Your task to perform on an android device: How do I get to the nearest Macy's? Image 0: 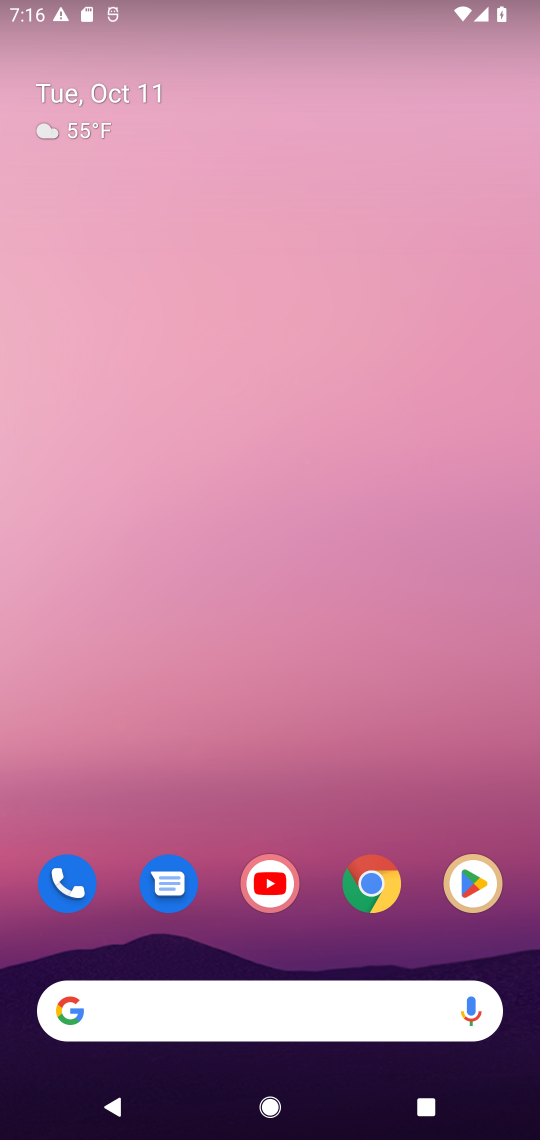
Step 0: drag from (313, 946) to (362, 6)
Your task to perform on an android device: How do I get to the nearest Macy's? Image 1: 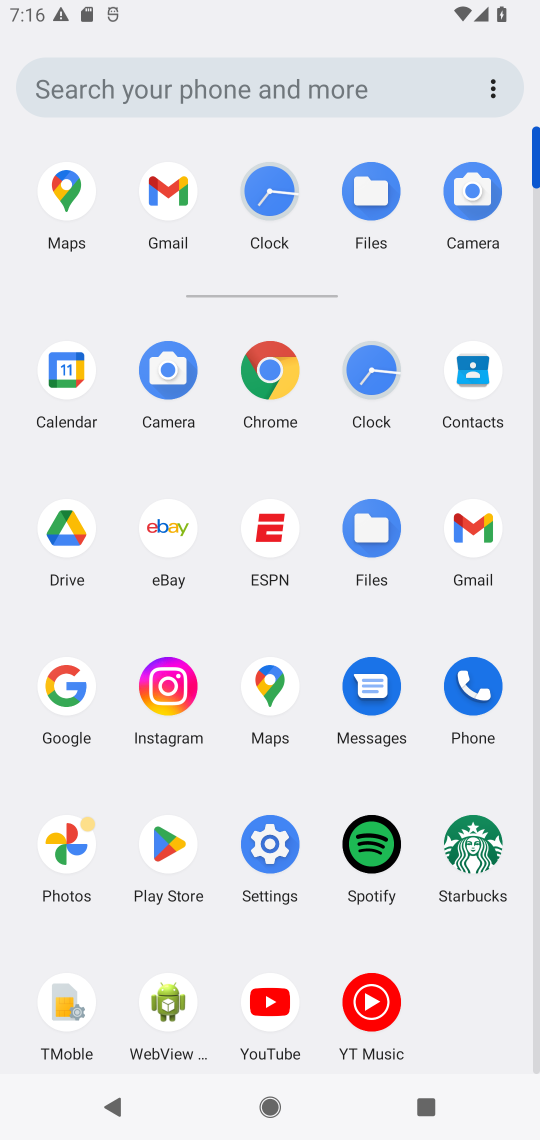
Step 1: click (275, 369)
Your task to perform on an android device: How do I get to the nearest Macy's? Image 2: 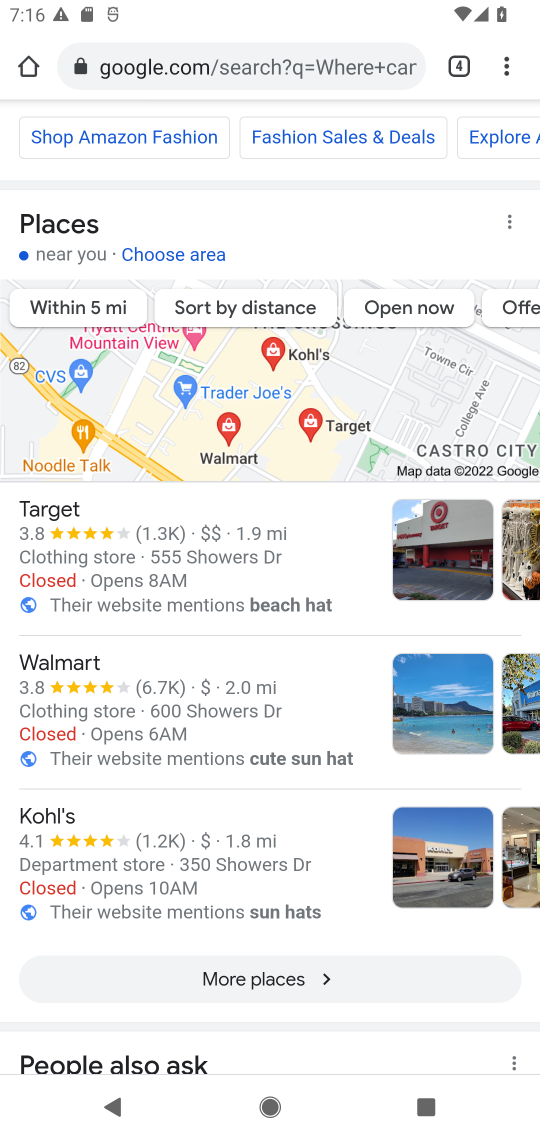
Step 2: click (286, 60)
Your task to perform on an android device: How do I get to the nearest Macy's? Image 3: 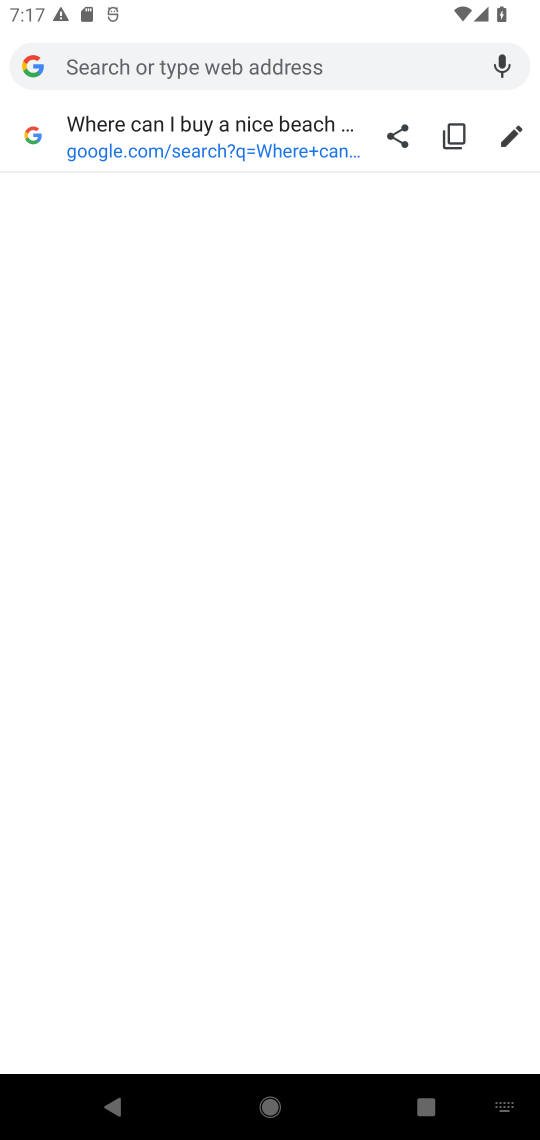
Step 3: type "How do I get to the nearest Macy's?"
Your task to perform on an android device: How do I get to the nearest Macy's? Image 4: 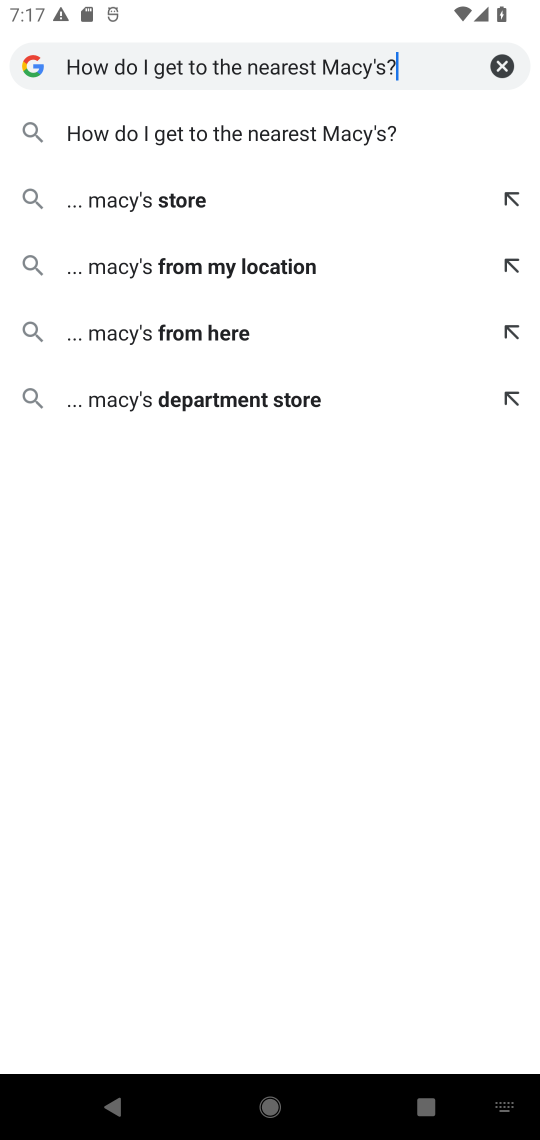
Step 4: press enter
Your task to perform on an android device: How do I get to the nearest Macy's? Image 5: 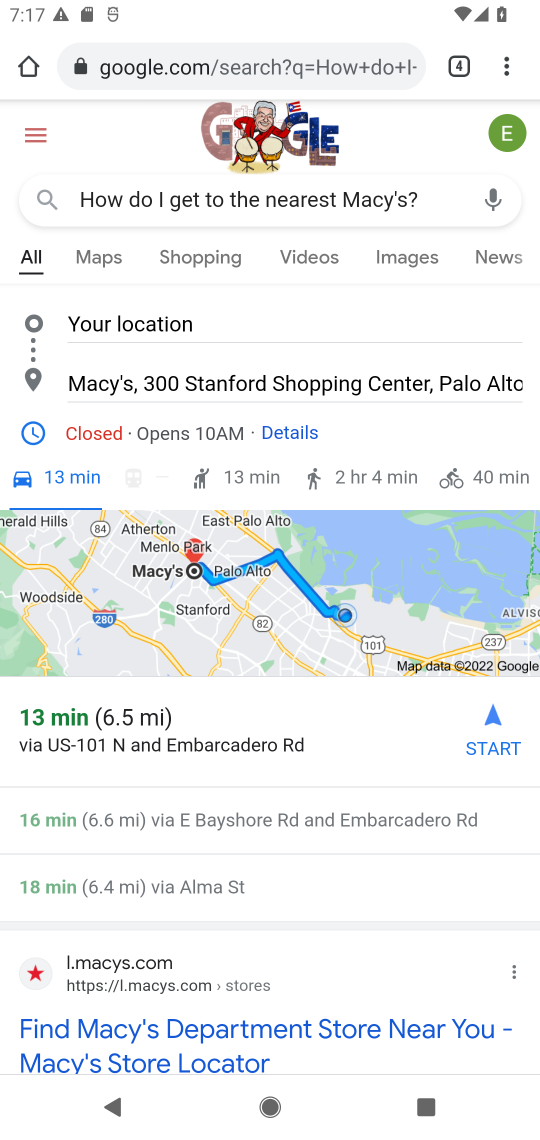
Step 5: task complete